Your task to perform on an android device: see sites visited before in the chrome app Image 0: 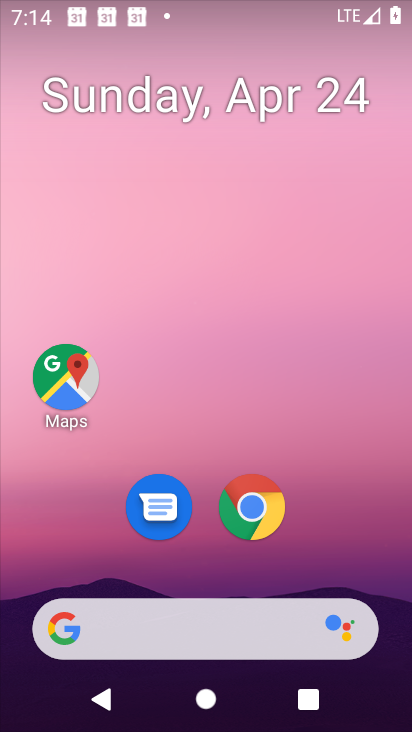
Step 0: drag from (377, 501) to (354, 102)
Your task to perform on an android device: see sites visited before in the chrome app Image 1: 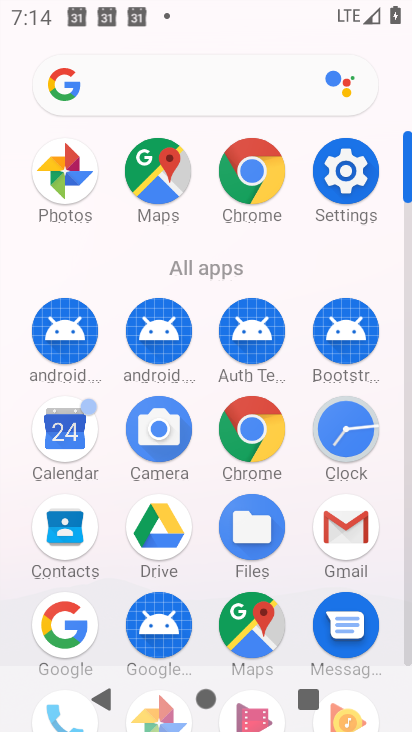
Step 1: click (246, 168)
Your task to perform on an android device: see sites visited before in the chrome app Image 2: 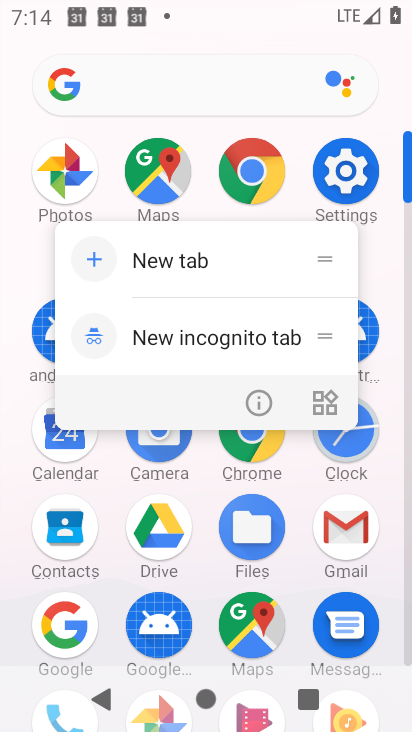
Step 2: click (246, 168)
Your task to perform on an android device: see sites visited before in the chrome app Image 3: 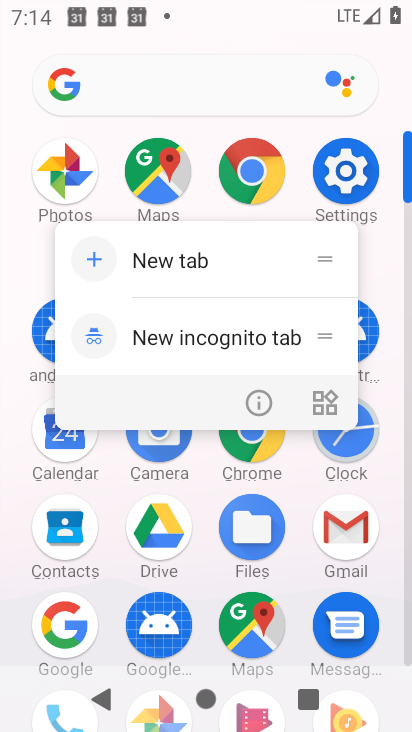
Step 3: click (246, 168)
Your task to perform on an android device: see sites visited before in the chrome app Image 4: 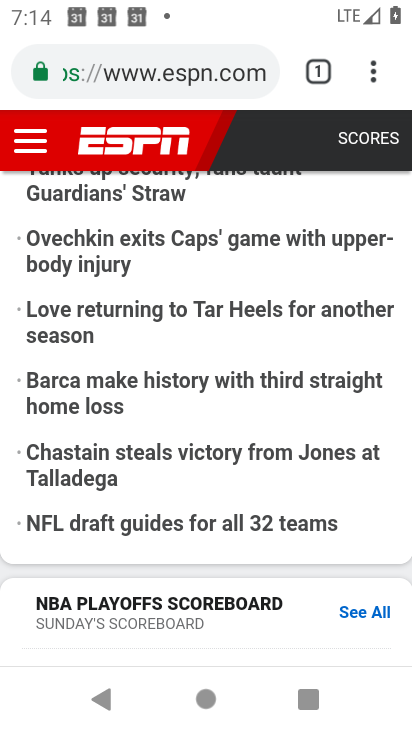
Step 4: task complete